Your task to perform on an android device: Go to eBay Image 0: 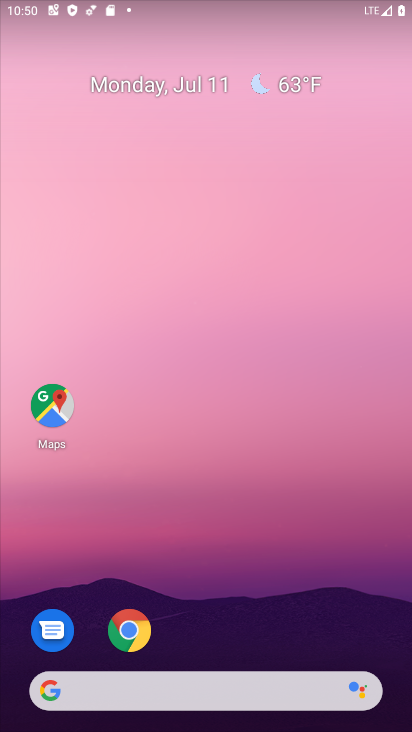
Step 0: click (134, 629)
Your task to perform on an android device: Go to eBay Image 1: 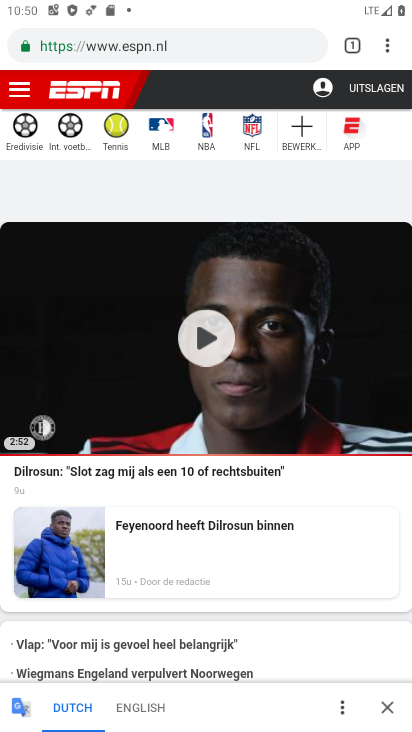
Step 1: click (210, 41)
Your task to perform on an android device: Go to eBay Image 2: 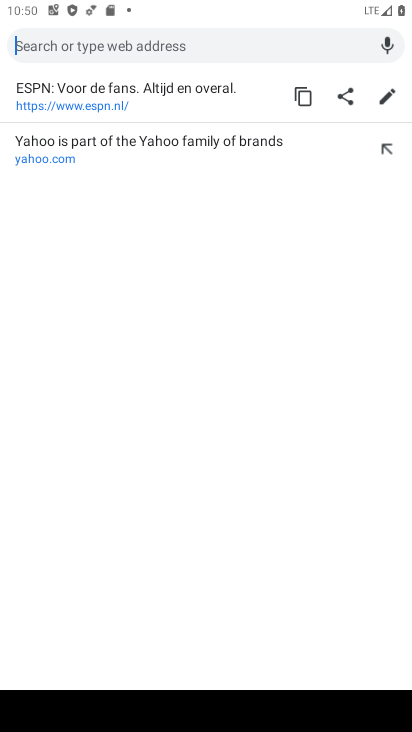
Step 2: type "eBay"
Your task to perform on an android device: Go to eBay Image 3: 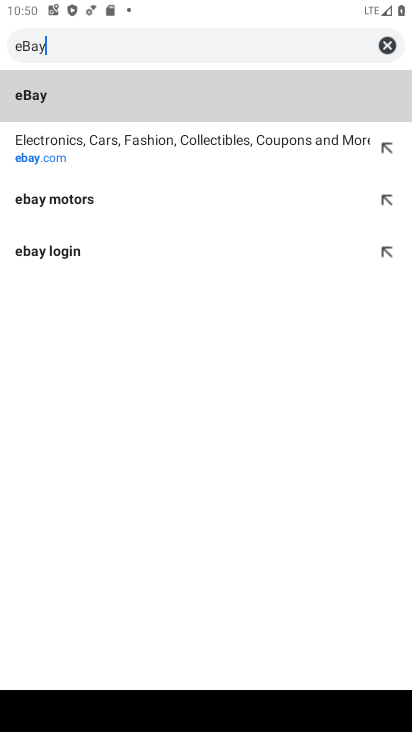
Step 3: click (61, 92)
Your task to perform on an android device: Go to eBay Image 4: 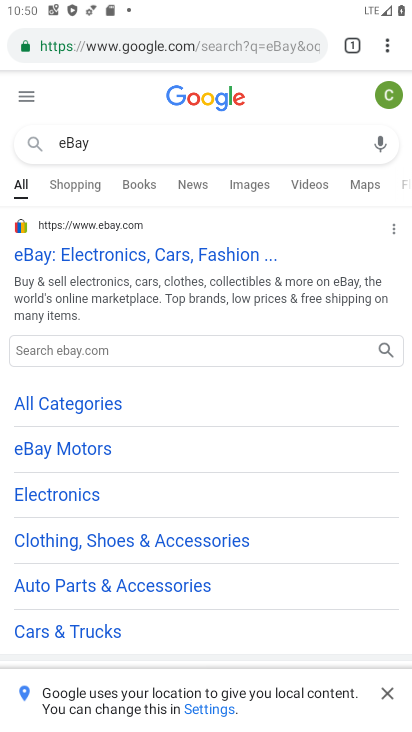
Step 4: click (70, 253)
Your task to perform on an android device: Go to eBay Image 5: 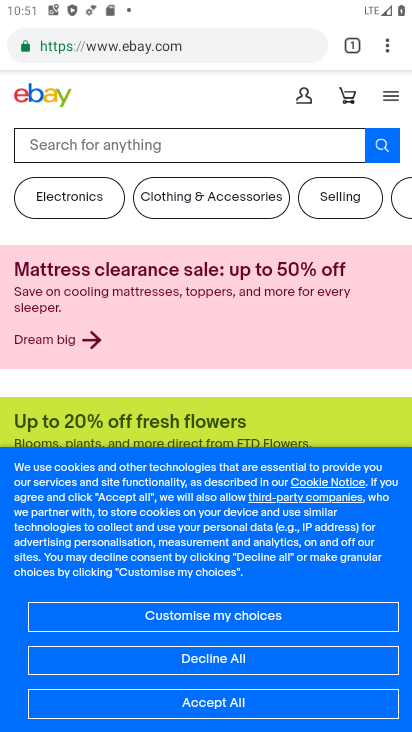
Step 5: click (205, 703)
Your task to perform on an android device: Go to eBay Image 6: 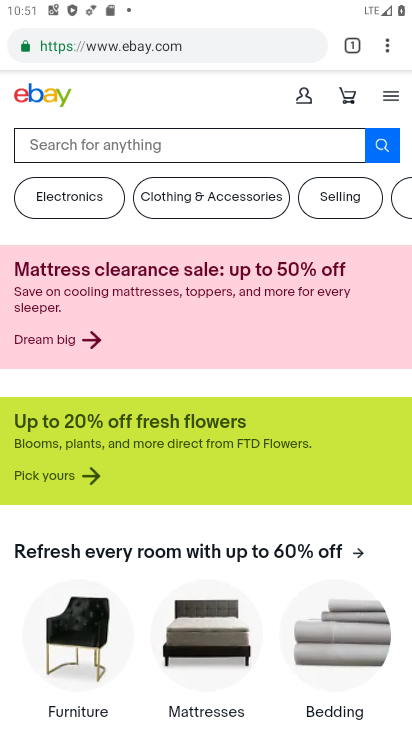
Step 6: task complete